Your task to perform on an android device: Open the Play Movies app and select the watchlist tab. Image 0: 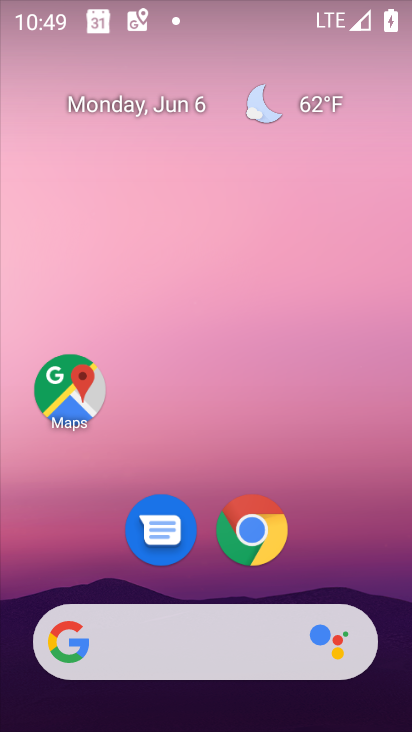
Step 0: drag from (316, 484) to (323, 29)
Your task to perform on an android device: Open the Play Movies app and select the watchlist tab. Image 1: 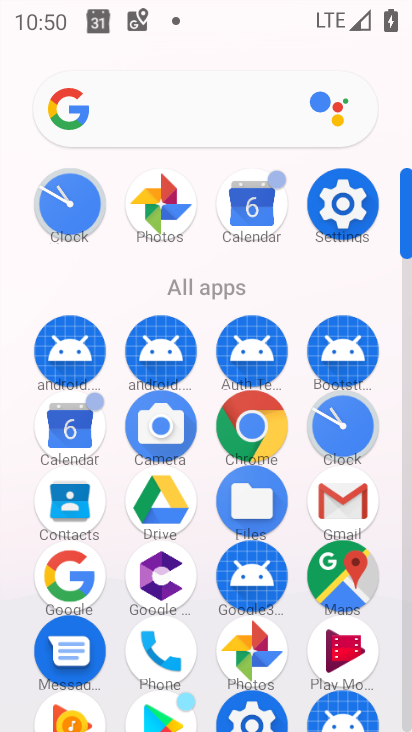
Step 1: click (344, 655)
Your task to perform on an android device: Open the Play Movies app and select the watchlist tab. Image 2: 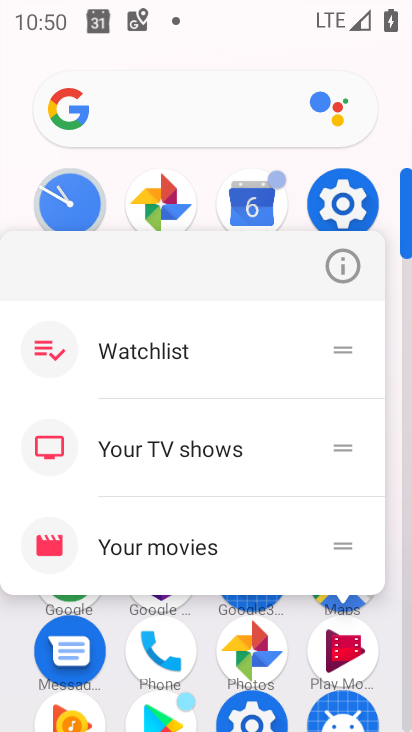
Step 2: click (343, 658)
Your task to perform on an android device: Open the Play Movies app and select the watchlist tab. Image 3: 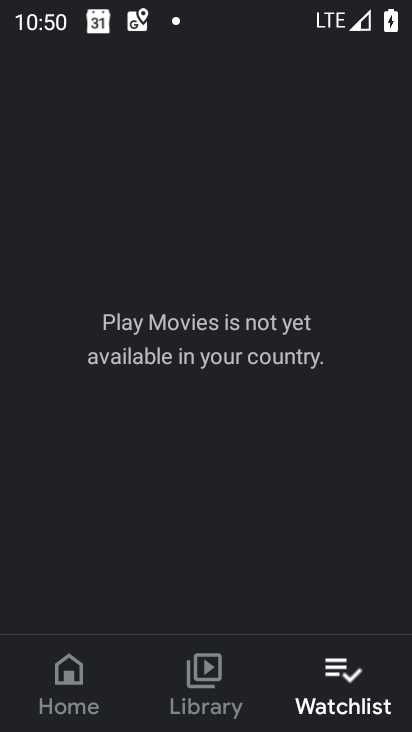
Step 3: task complete